Your task to perform on an android device: Do I have any events today? Image 0: 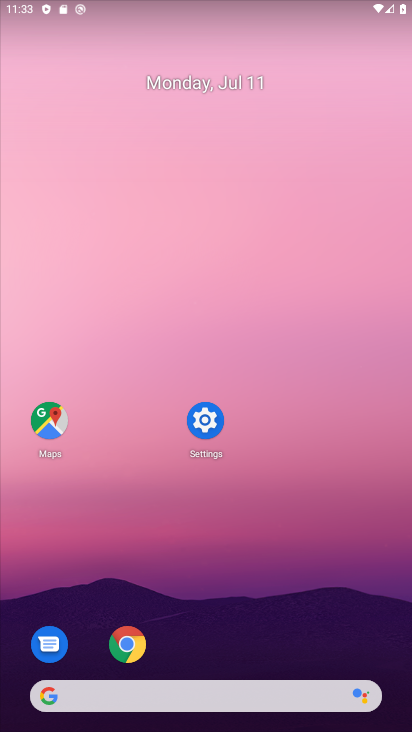
Step 0: drag from (410, 701) to (338, 228)
Your task to perform on an android device: Do I have any events today? Image 1: 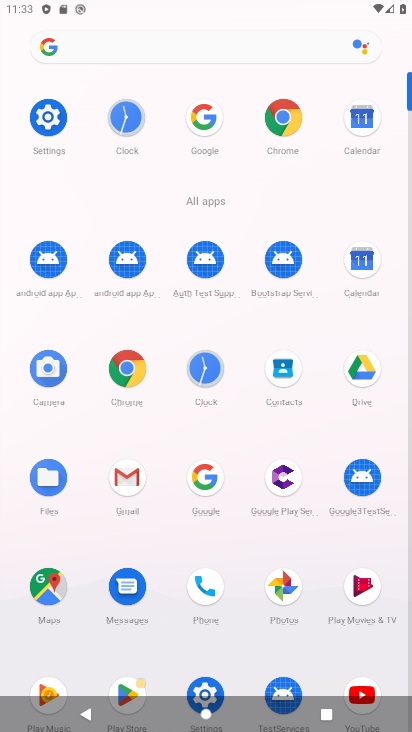
Step 1: click (358, 121)
Your task to perform on an android device: Do I have any events today? Image 2: 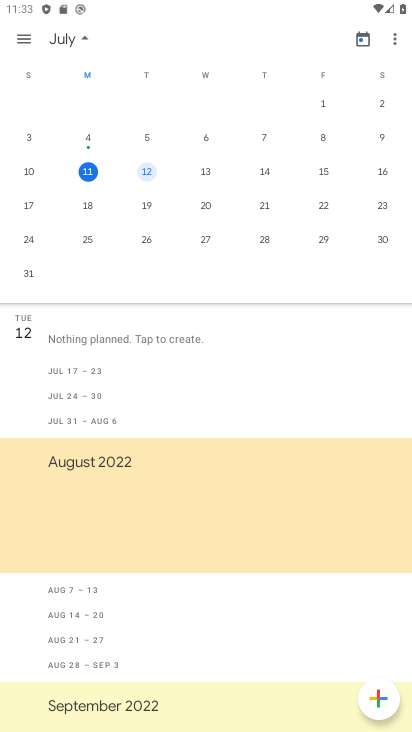
Step 2: click (77, 169)
Your task to perform on an android device: Do I have any events today? Image 3: 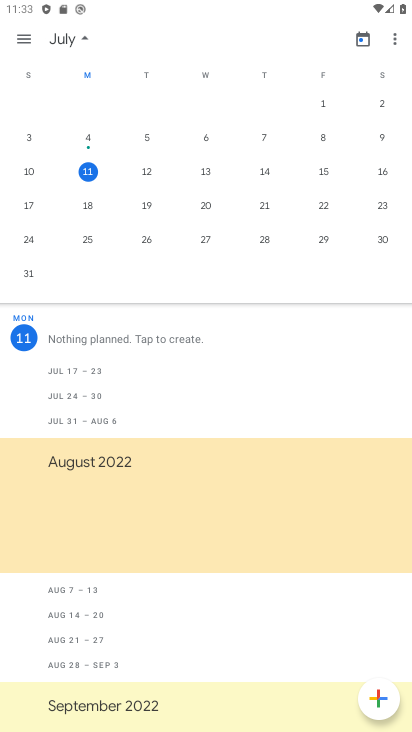
Step 3: task complete